Your task to perform on an android device: Search for floor lamps on article.com Image 0: 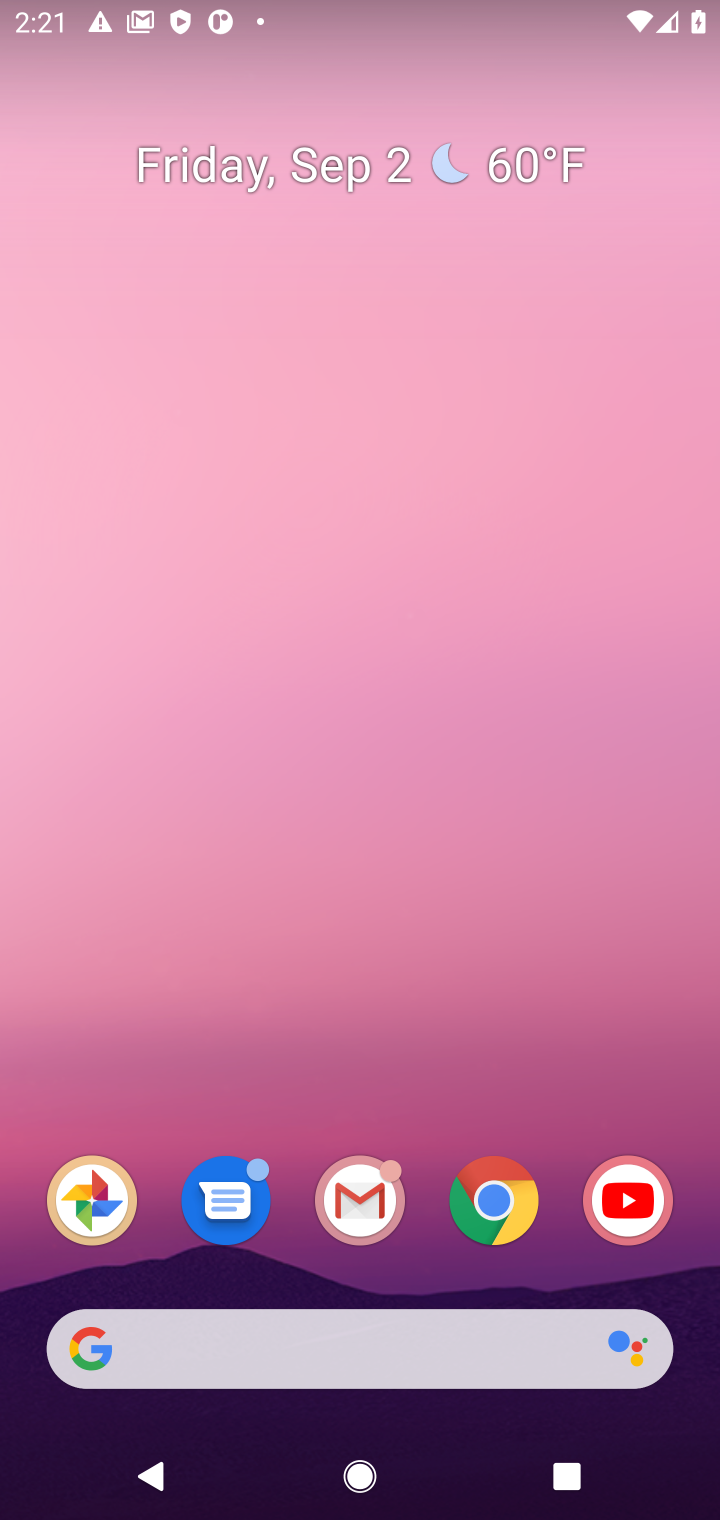
Step 0: click (504, 1211)
Your task to perform on an android device: Search for floor lamps on article.com Image 1: 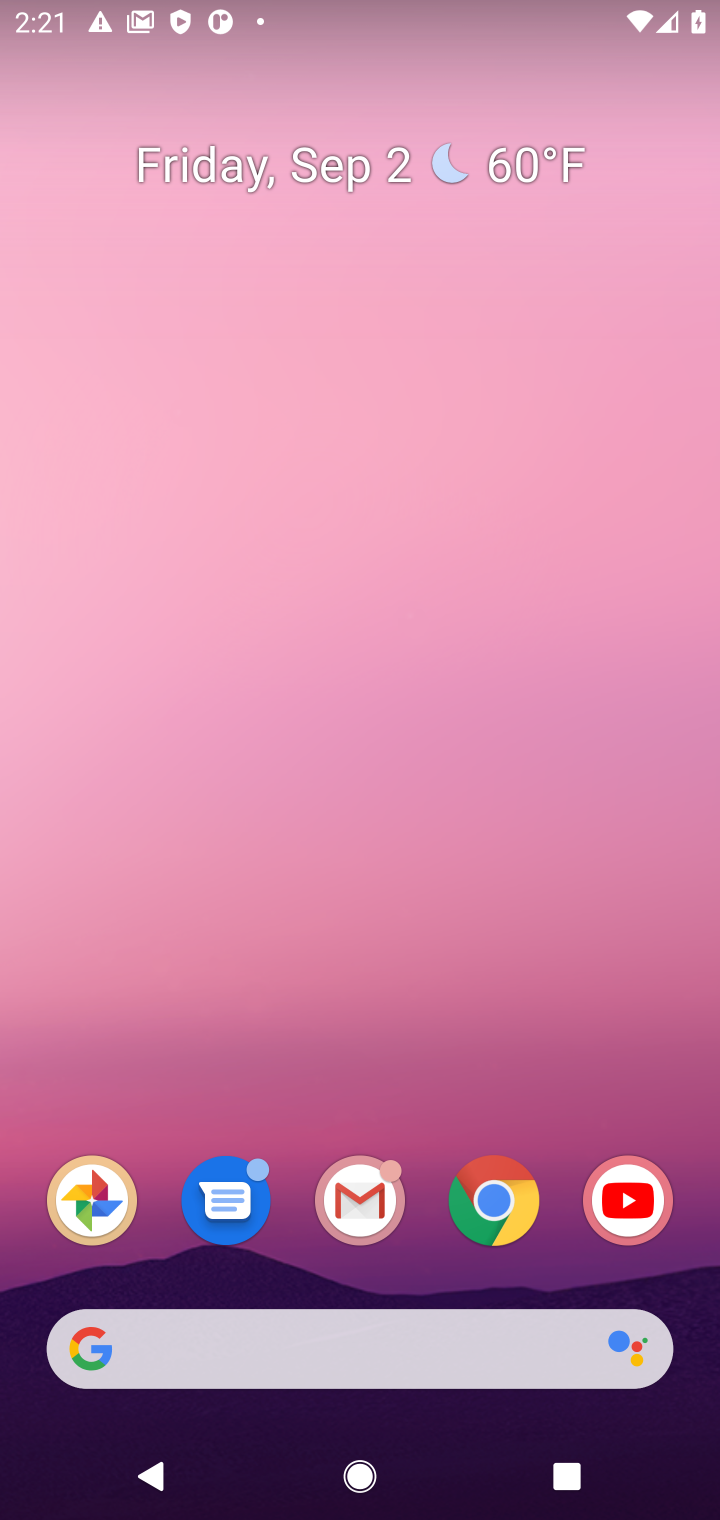
Step 1: click (485, 1203)
Your task to perform on an android device: Search for floor lamps on article.com Image 2: 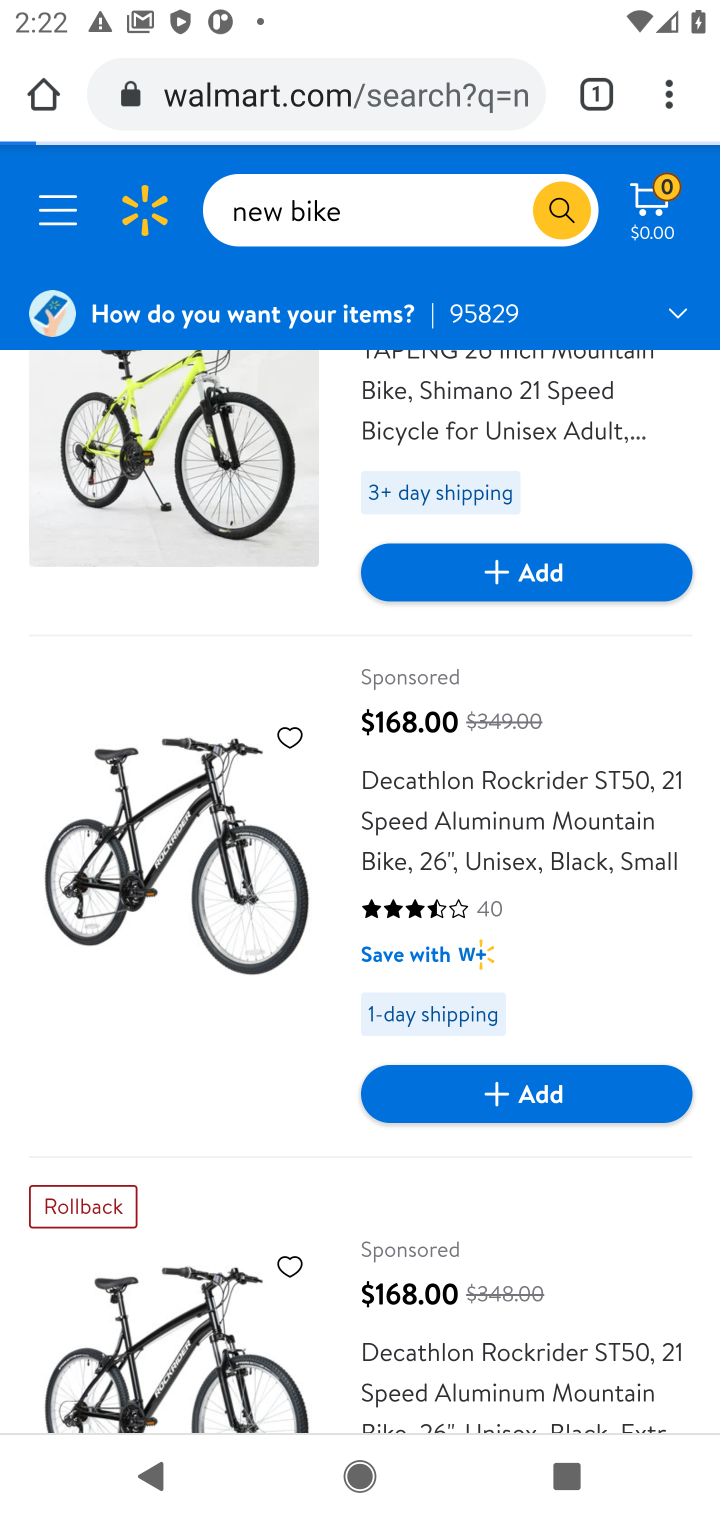
Step 2: click (439, 91)
Your task to perform on an android device: Search for floor lamps on article.com Image 3: 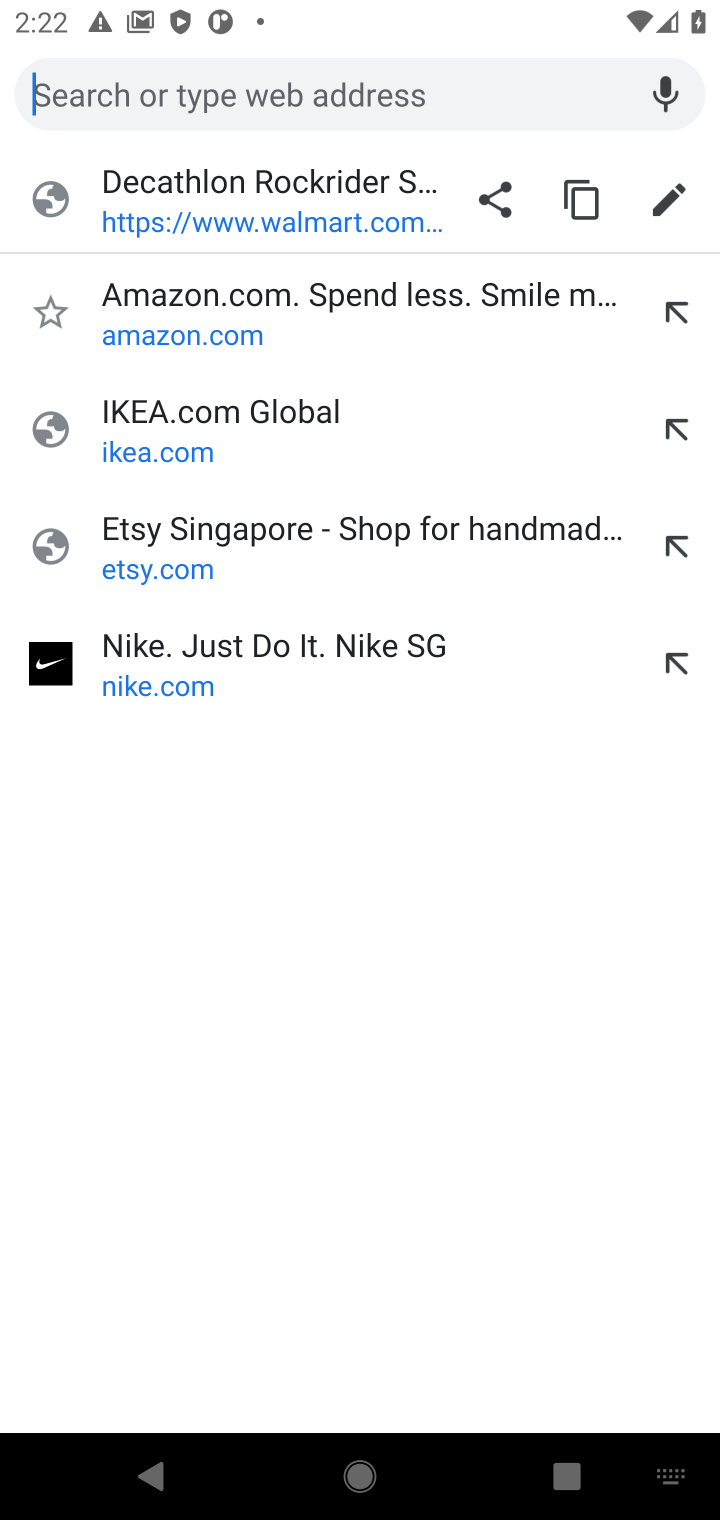
Step 3: type "article.com"
Your task to perform on an android device: Search for floor lamps on article.com Image 4: 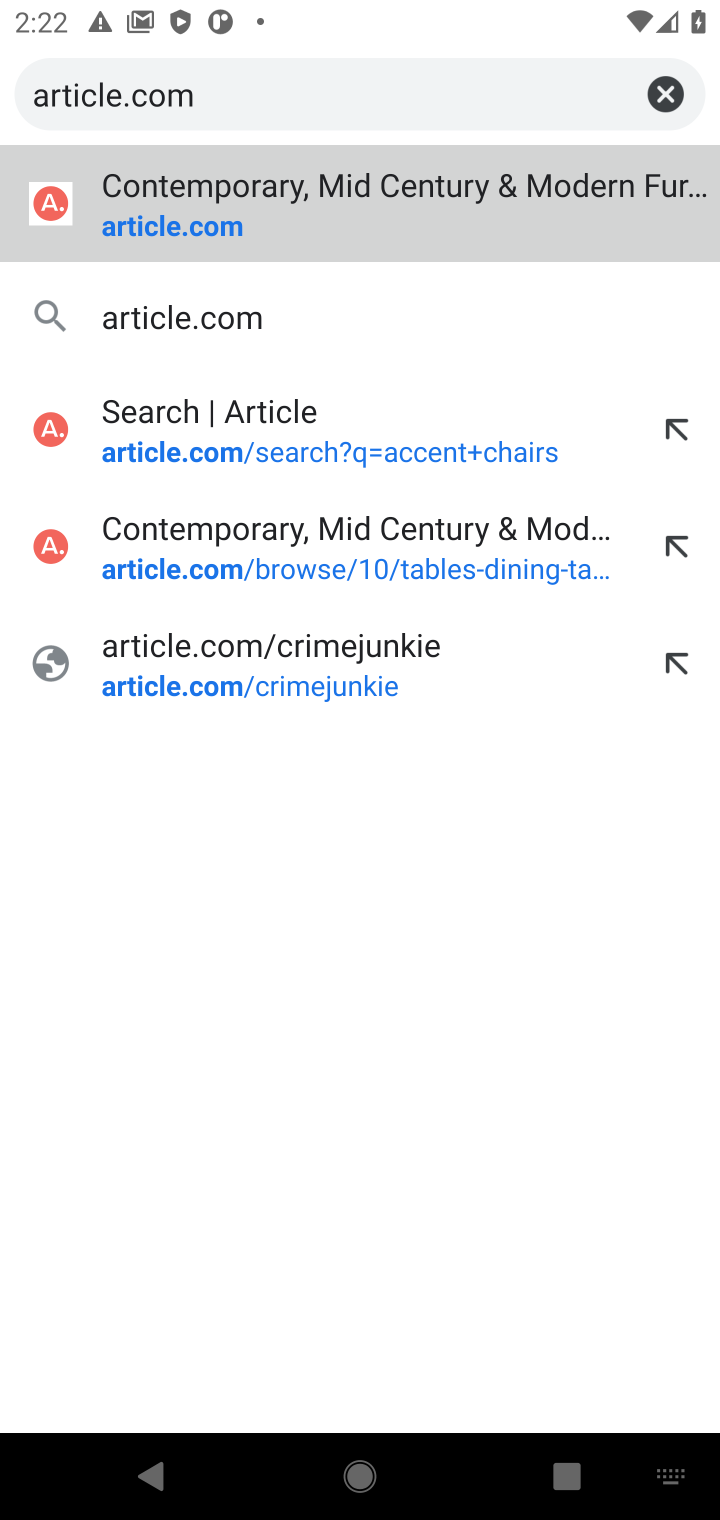
Step 4: press enter
Your task to perform on an android device: Search for floor lamps on article.com Image 5: 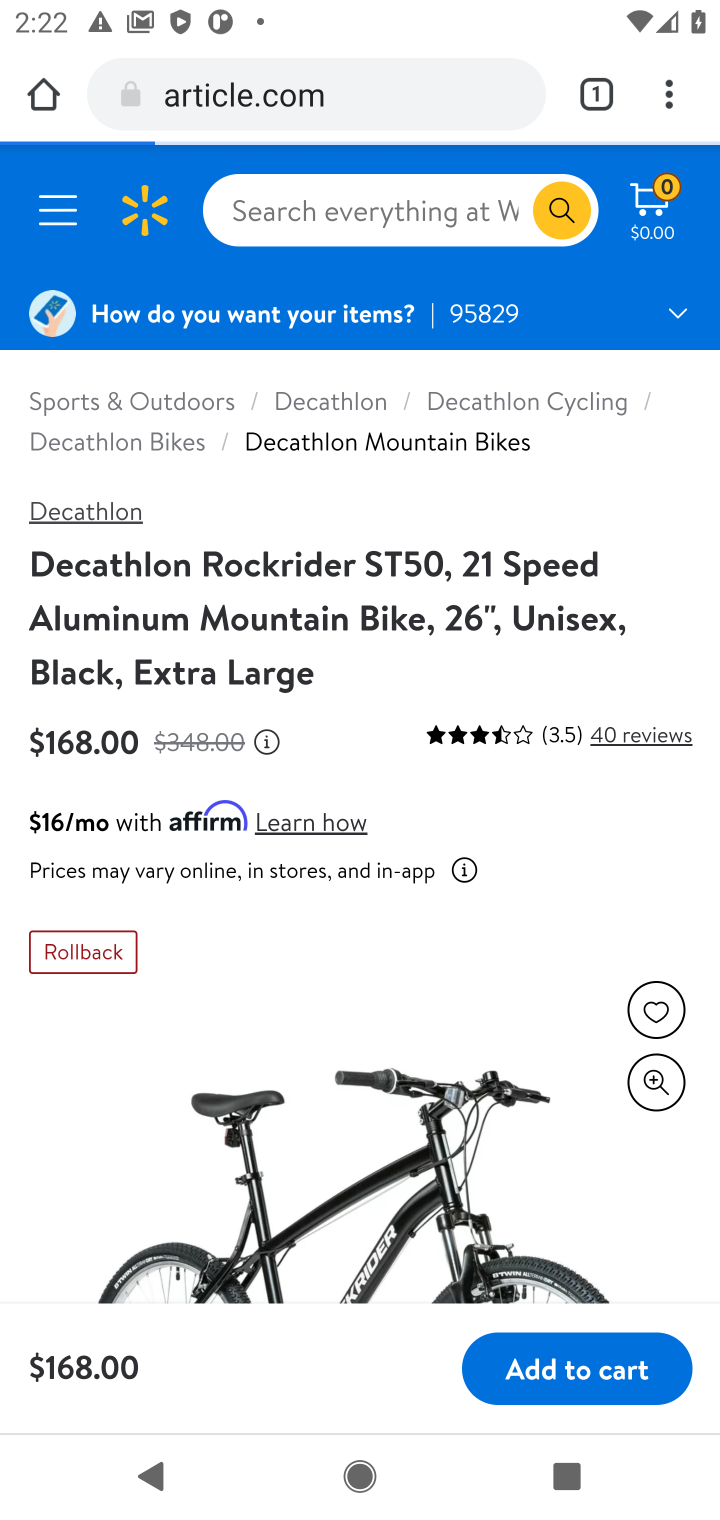
Step 5: click (229, 333)
Your task to perform on an android device: Search for floor lamps on article.com Image 6: 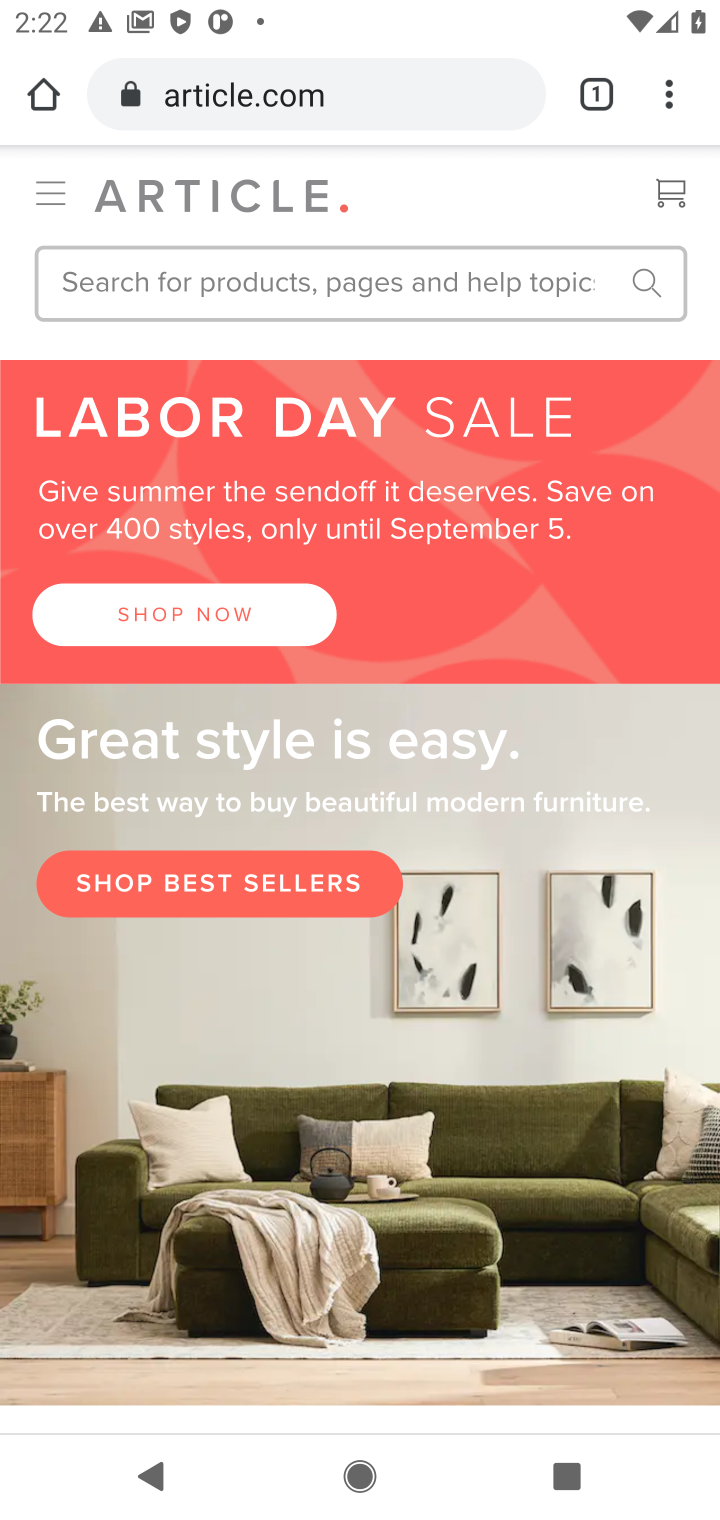
Step 6: click (317, 283)
Your task to perform on an android device: Search for floor lamps on article.com Image 7: 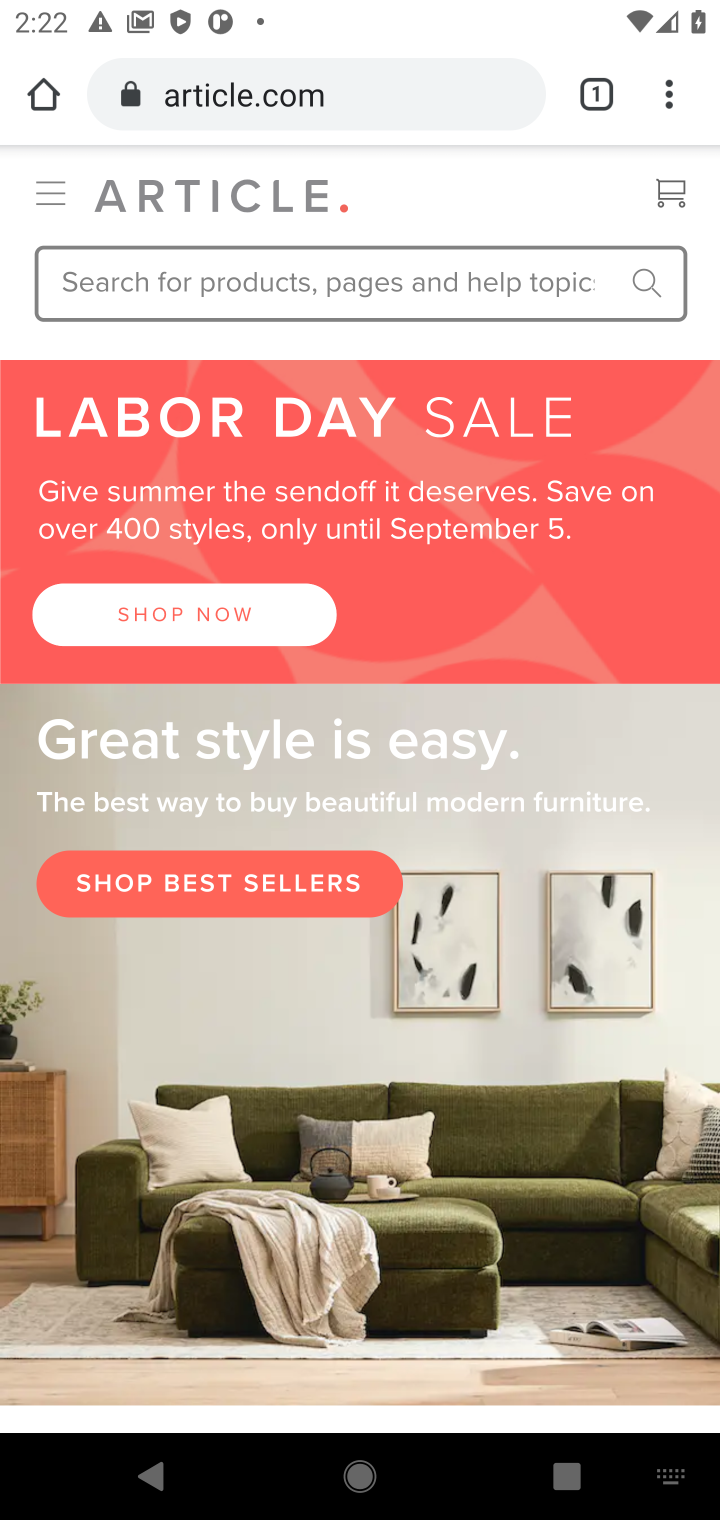
Step 7: click (422, 277)
Your task to perform on an android device: Search for floor lamps on article.com Image 8: 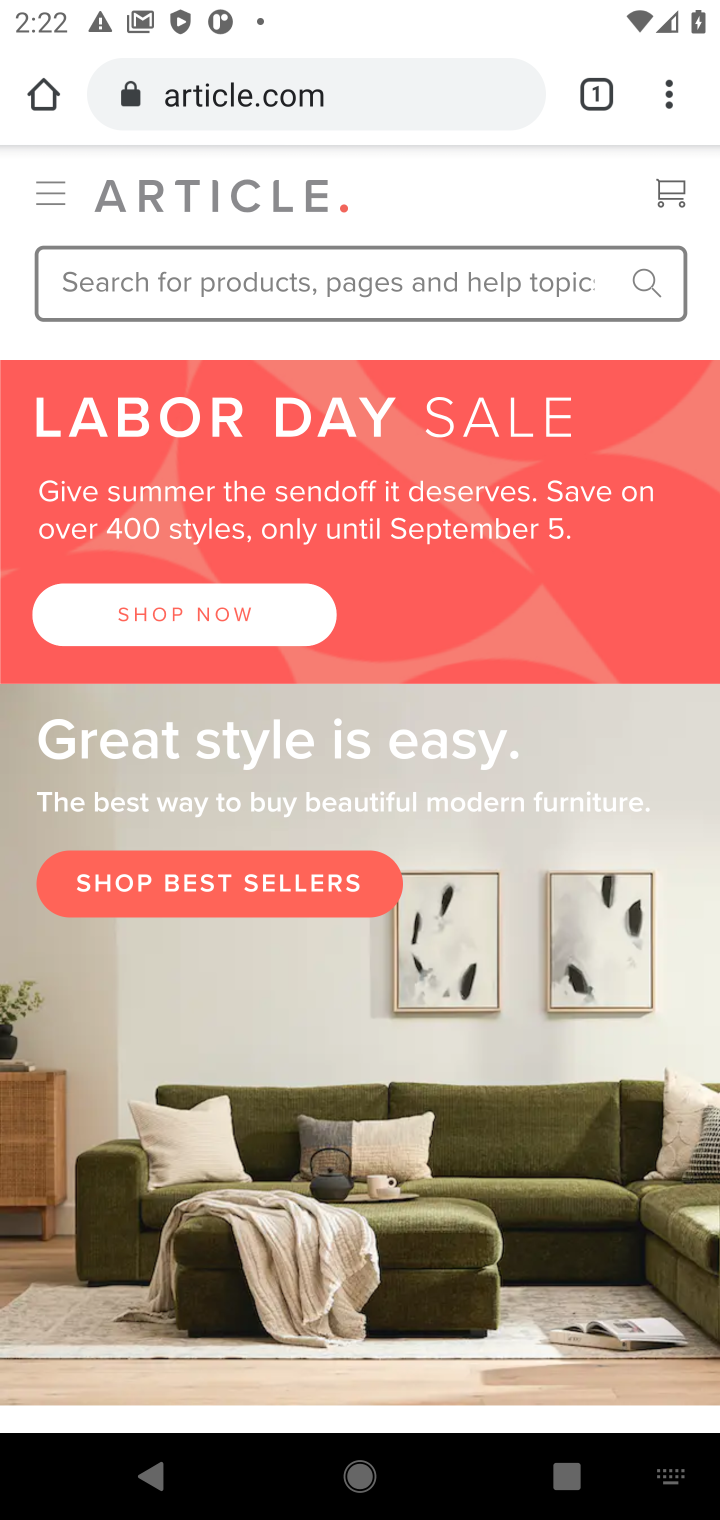
Step 8: click (640, 277)
Your task to perform on an android device: Search for floor lamps on article.com Image 9: 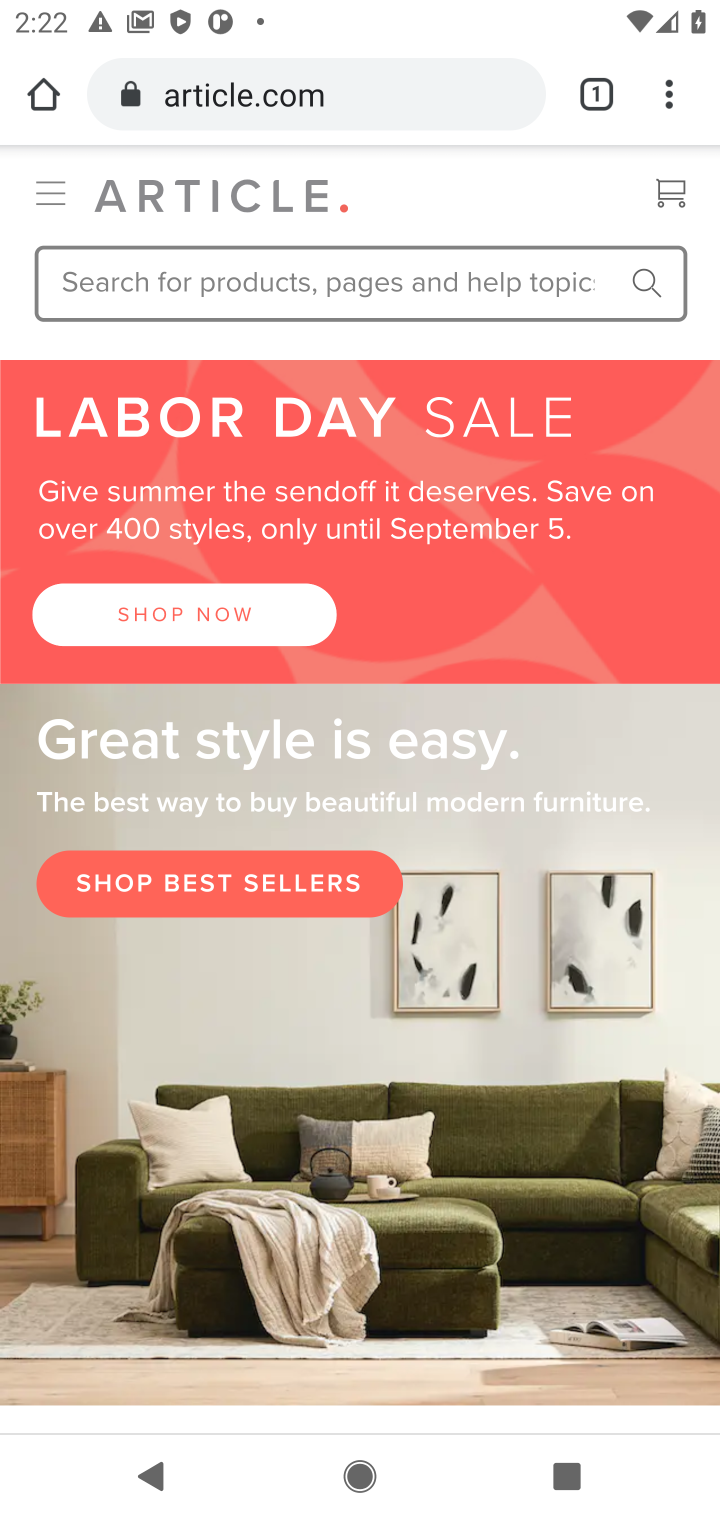
Step 9: click (535, 285)
Your task to perform on an android device: Search for floor lamps on article.com Image 10: 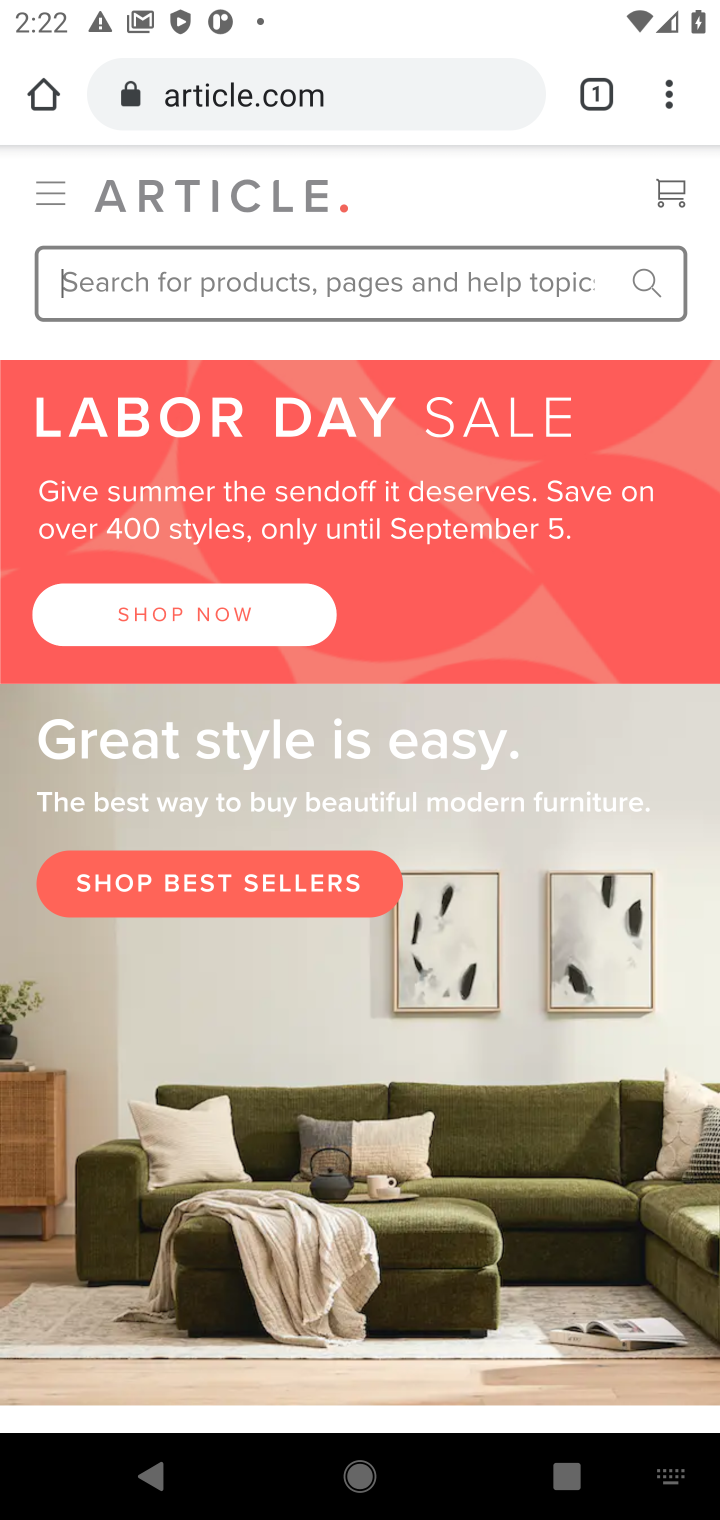
Step 10: press enter
Your task to perform on an android device: Search for floor lamps on article.com Image 11: 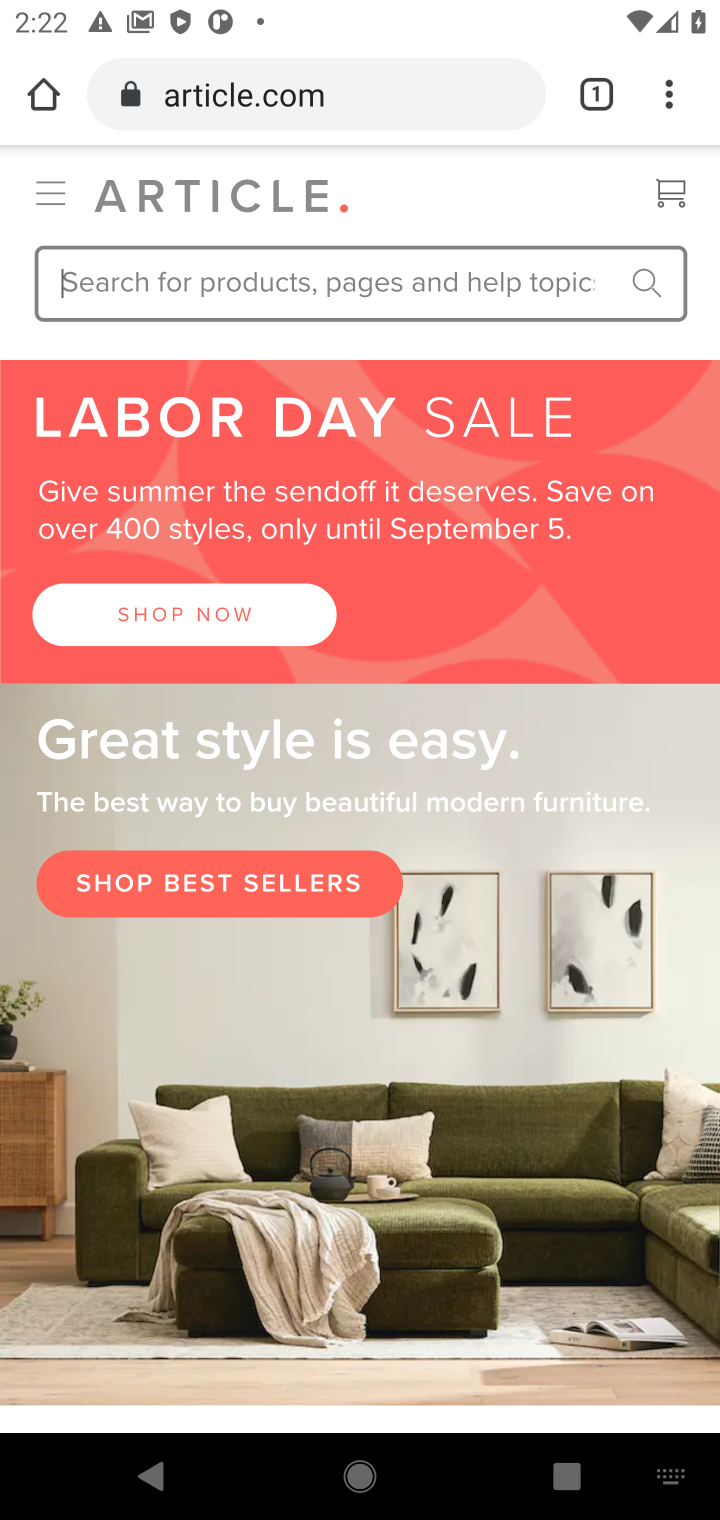
Step 11: type " floor lamps "
Your task to perform on an android device: Search for floor lamps on article.com Image 12: 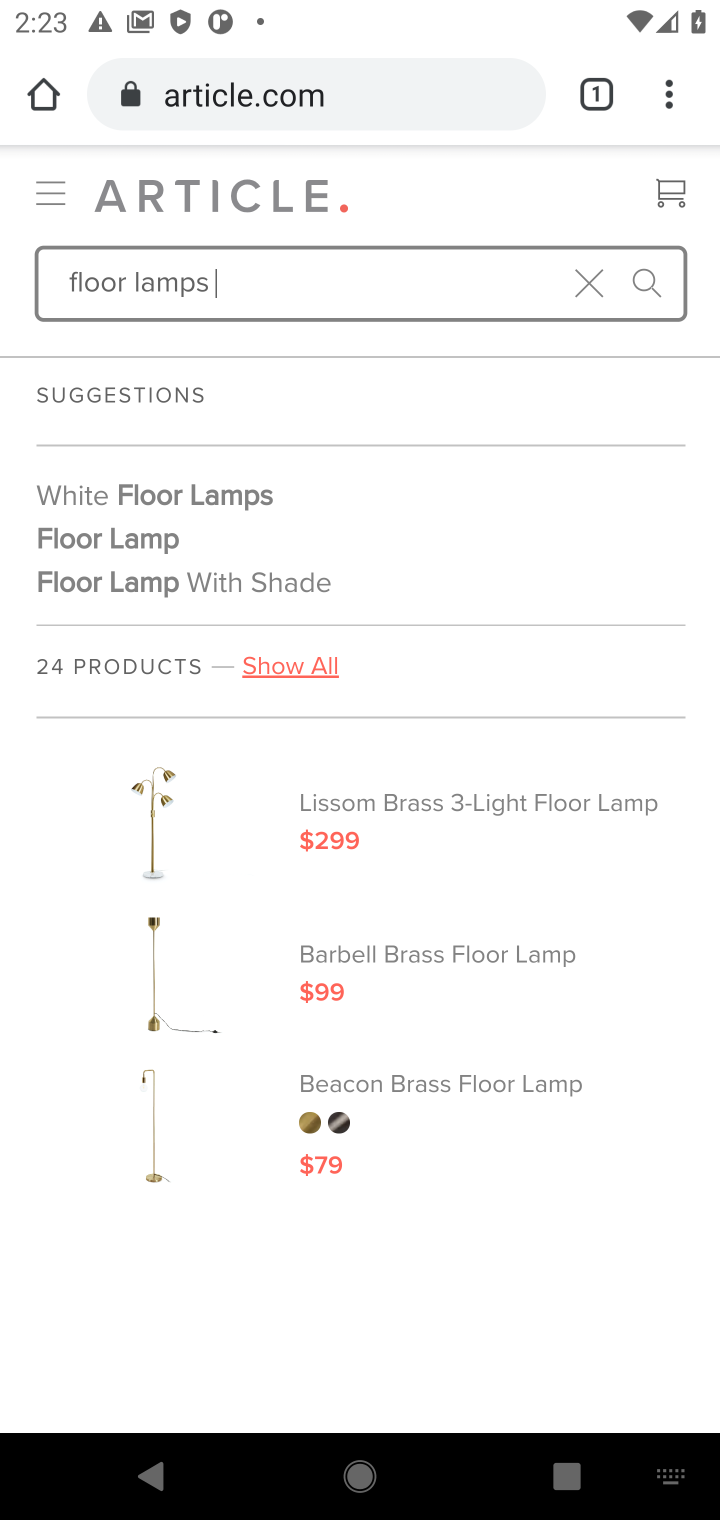
Step 12: click (635, 267)
Your task to perform on an android device: Search for floor lamps on article.com Image 13: 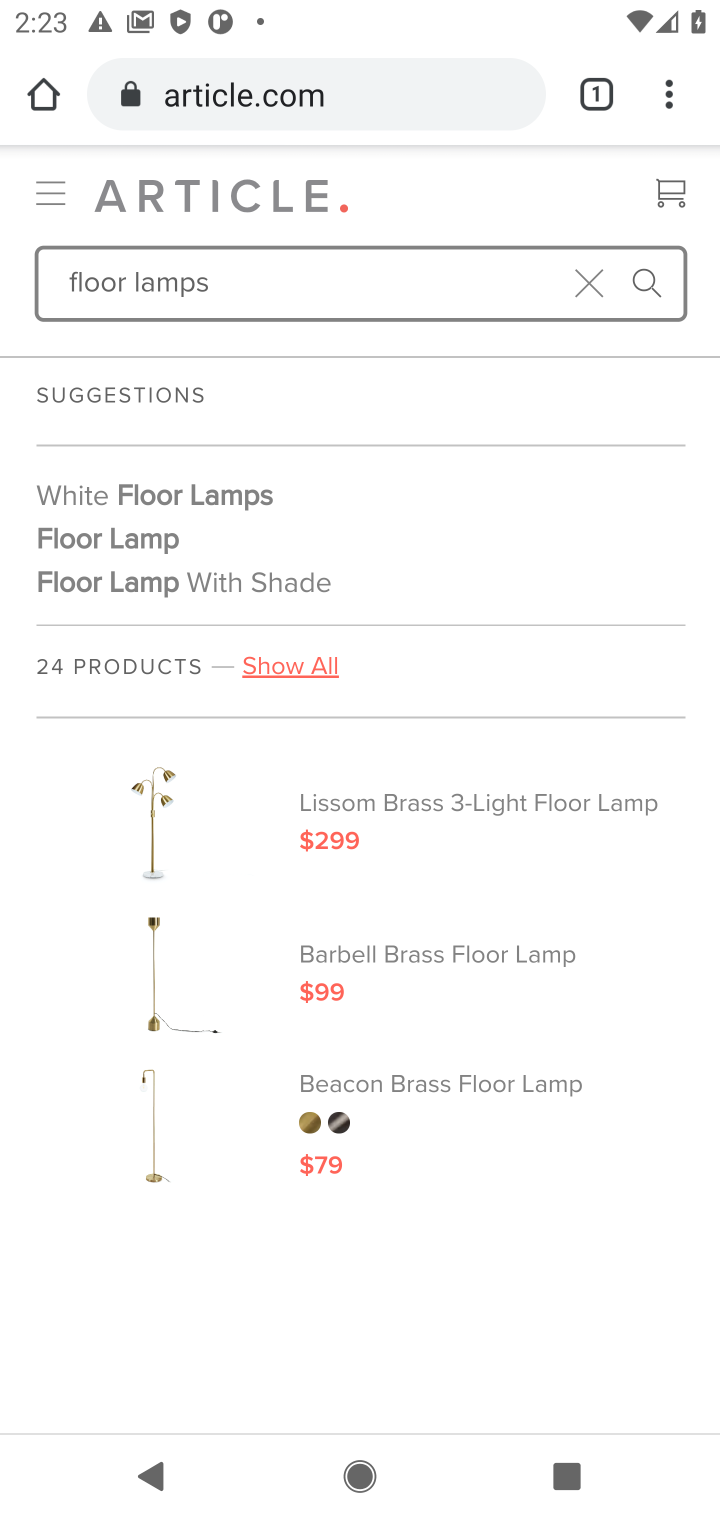
Step 13: task complete